Your task to perform on an android device: Open my contact list Image 0: 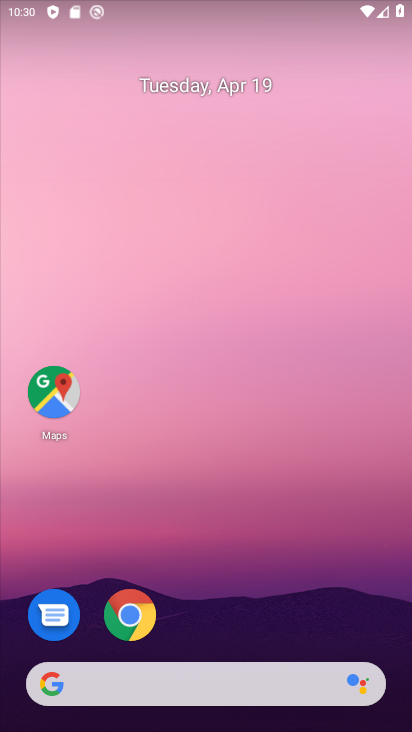
Step 0: drag from (266, 309) to (271, 24)
Your task to perform on an android device: Open my contact list Image 1: 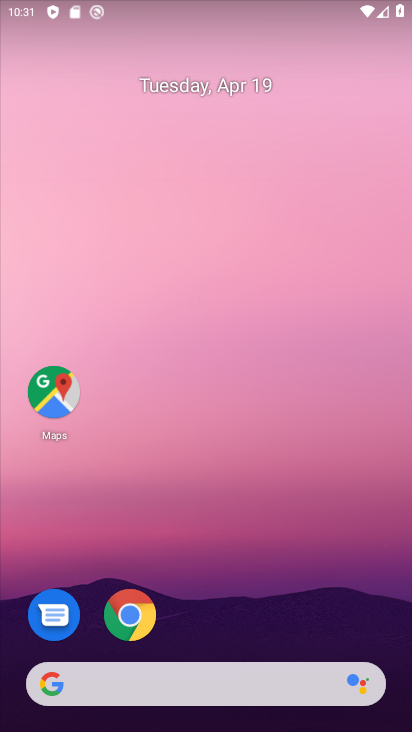
Step 1: drag from (242, 524) to (270, 55)
Your task to perform on an android device: Open my contact list Image 2: 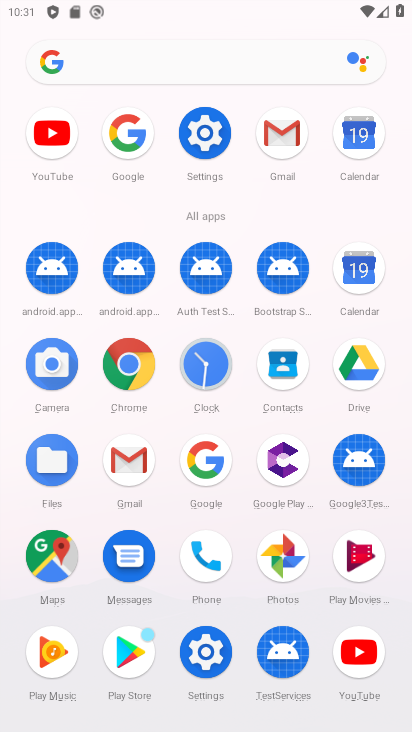
Step 2: click (279, 364)
Your task to perform on an android device: Open my contact list Image 3: 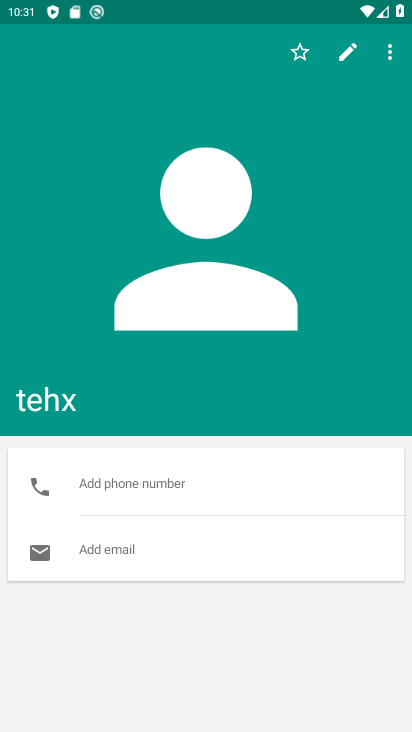
Step 3: press back button
Your task to perform on an android device: Open my contact list Image 4: 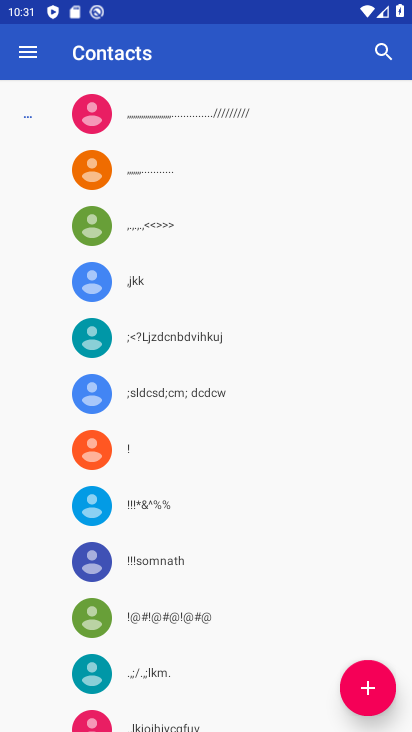
Step 4: click (365, 688)
Your task to perform on an android device: Open my contact list Image 5: 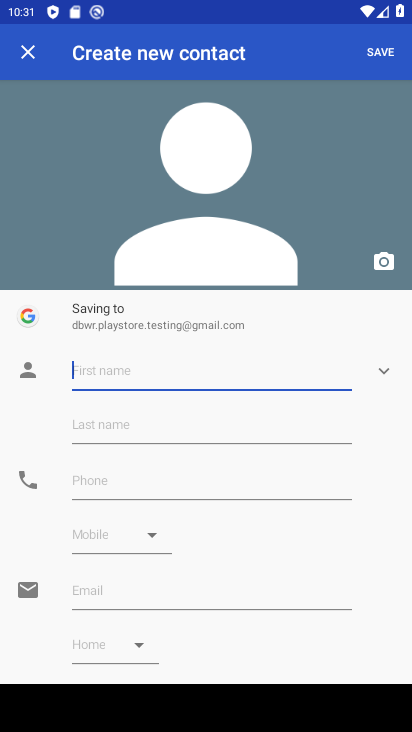
Step 5: type "jhd"
Your task to perform on an android device: Open my contact list Image 6: 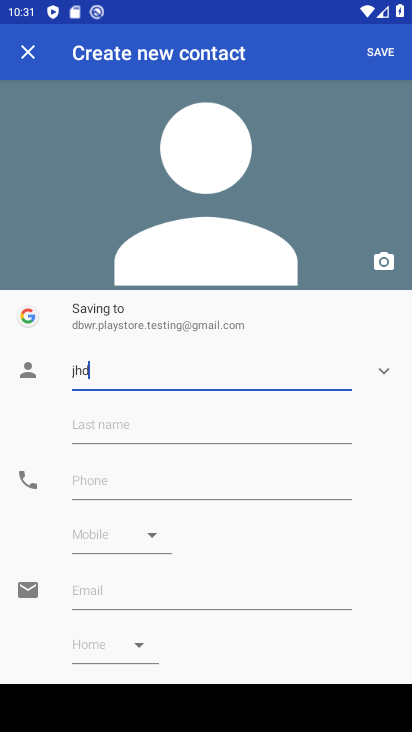
Step 6: click (371, 55)
Your task to perform on an android device: Open my contact list Image 7: 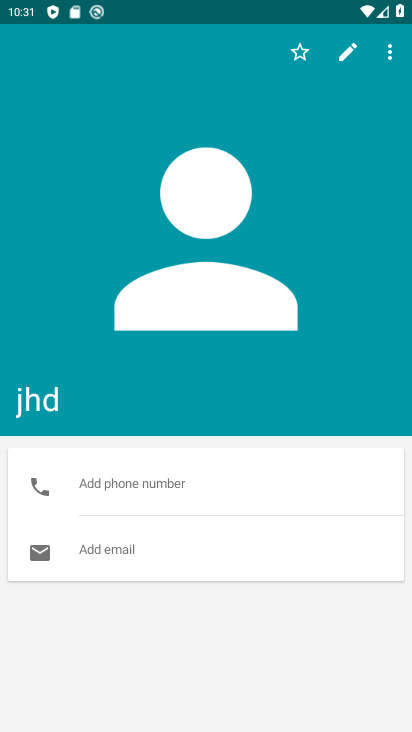
Step 7: task complete